Your task to perform on an android device: turn off translation in the chrome app Image 0: 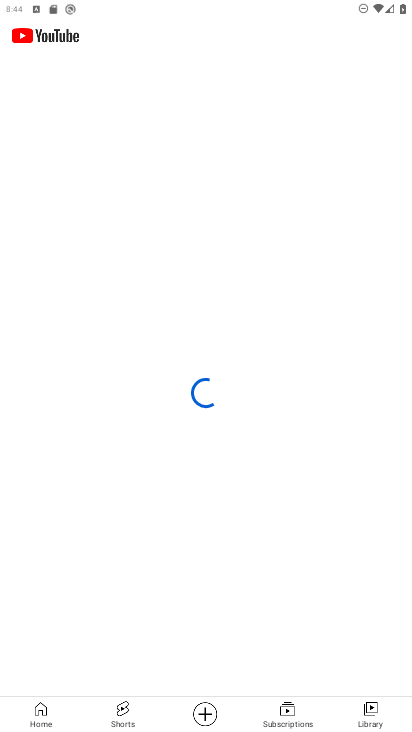
Step 0: drag from (301, 298) to (338, 133)
Your task to perform on an android device: turn off translation in the chrome app Image 1: 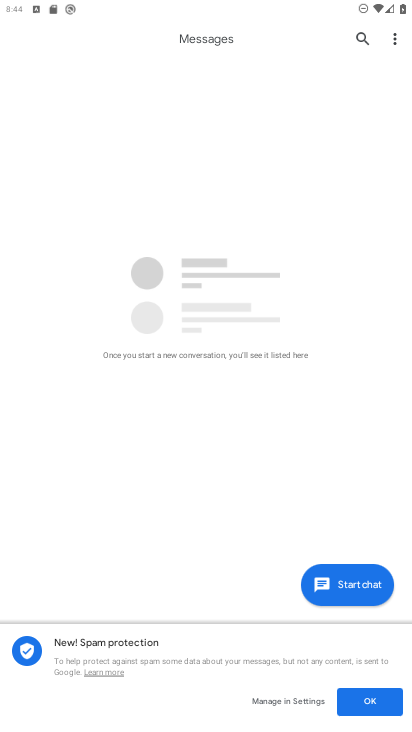
Step 1: press home button
Your task to perform on an android device: turn off translation in the chrome app Image 2: 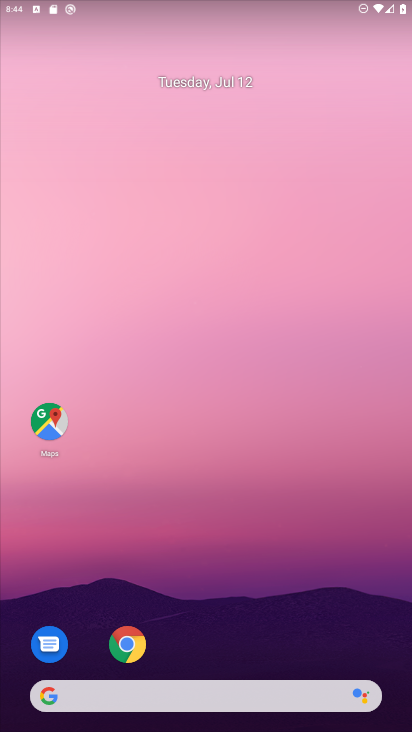
Step 2: click (125, 645)
Your task to perform on an android device: turn off translation in the chrome app Image 3: 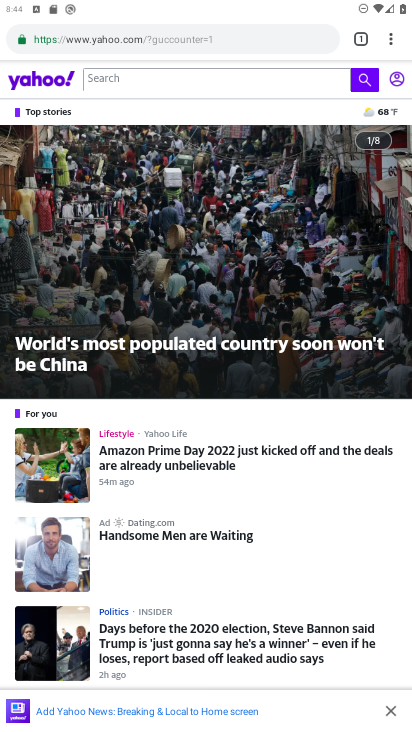
Step 3: click (388, 43)
Your task to perform on an android device: turn off translation in the chrome app Image 4: 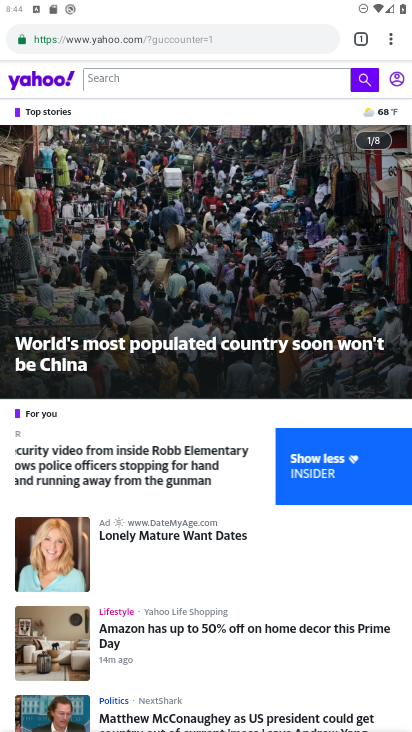
Step 4: click (389, 42)
Your task to perform on an android device: turn off translation in the chrome app Image 5: 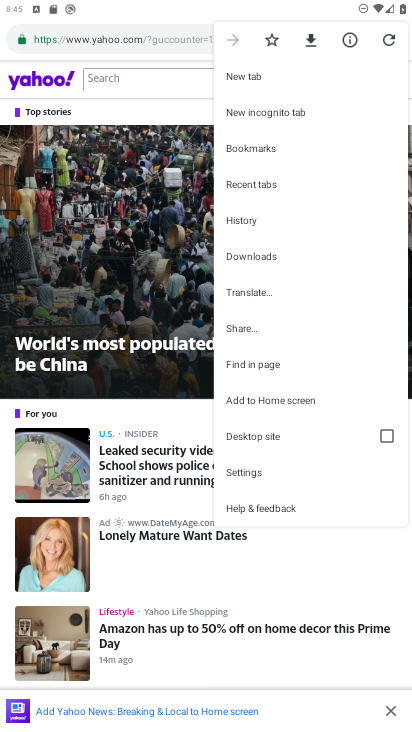
Step 5: click (244, 472)
Your task to perform on an android device: turn off translation in the chrome app Image 6: 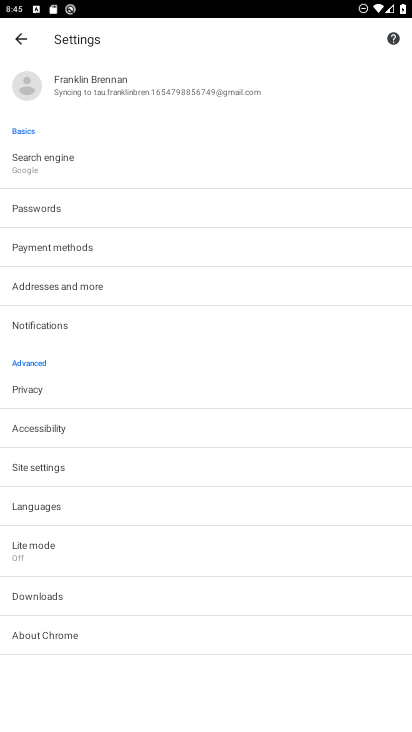
Step 6: click (37, 508)
Your task to perform on an android device: turn off translation in the chrome app Image 7: 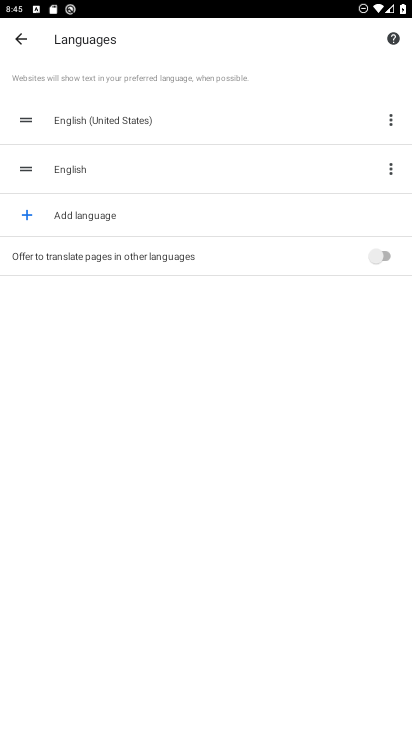
Step 7: task complete